Your task to perform on an android device: Go to display settings Image 0: 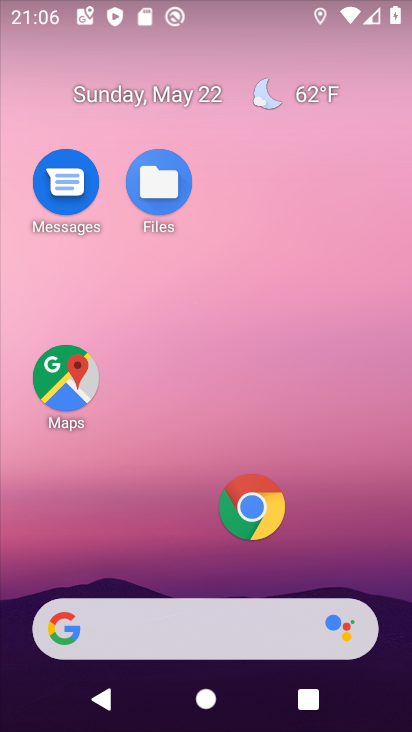
Step 0: drag from (266, 593) to (263, 98)
Your task to perform on an android device: Go to display settings Image 1: 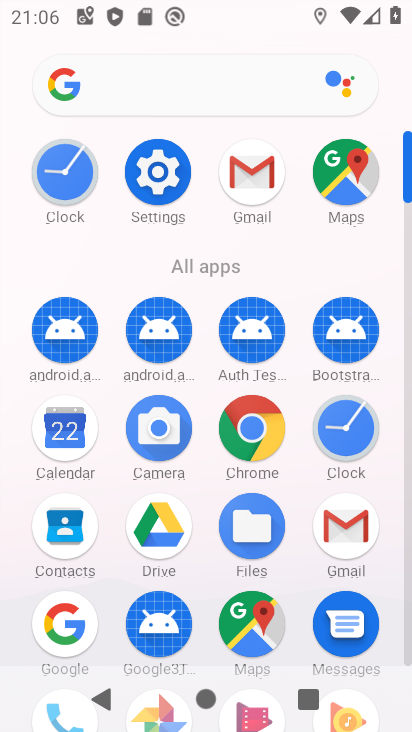
Step 1: click (128, 203)
Your task to perform on an android device: Go to display settings Image 2: 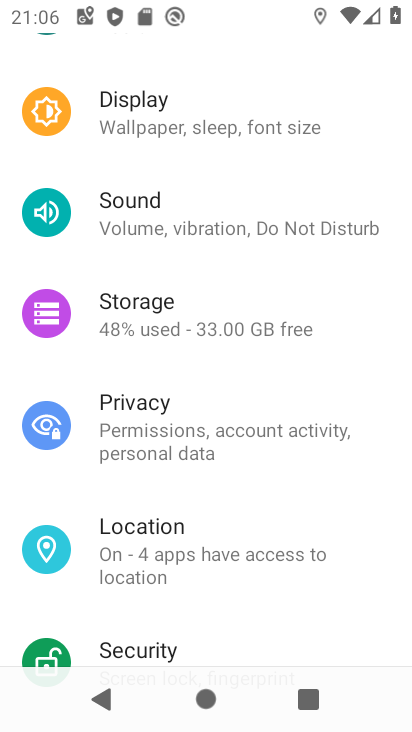
Step 2: click (159, 142)
Your task to perform on an android device: Go to display settings Image 3: 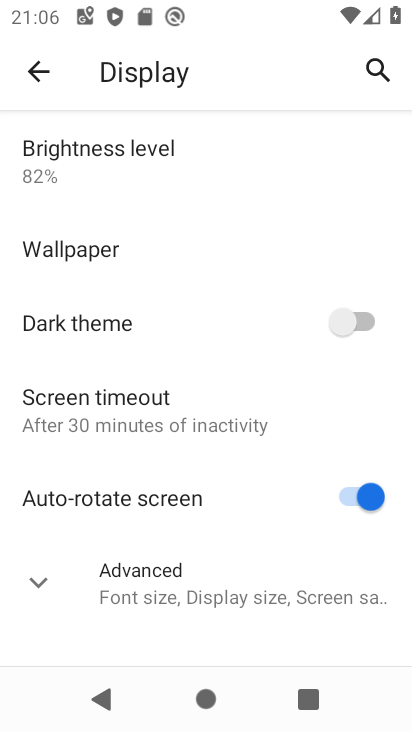
Step 3: click (204, 575)
Your task to perform on an android device: Go to display settings Image 4: 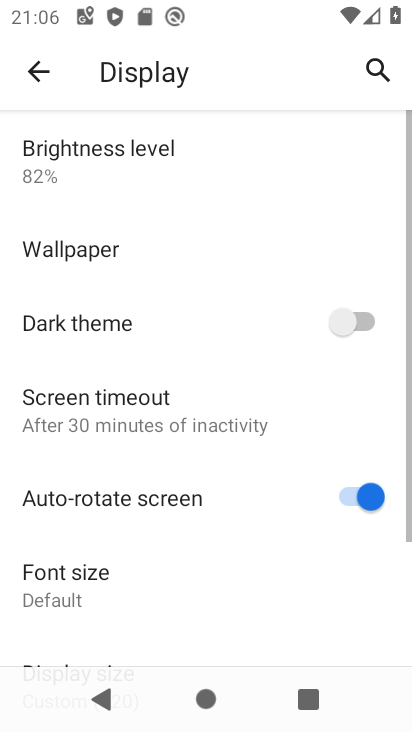
Step 4: task complete